Your task to perform on an android device: toggle location history Image 0: 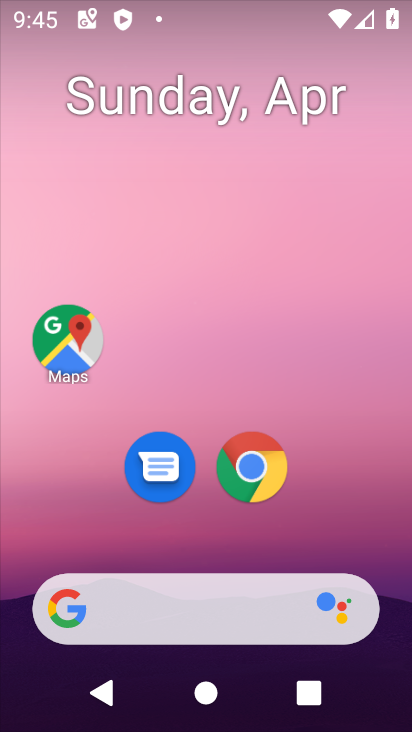
Step 0: drag from (202, 552) to (231, 43)
Your task to perform on an android device: toggle location history Image 1: 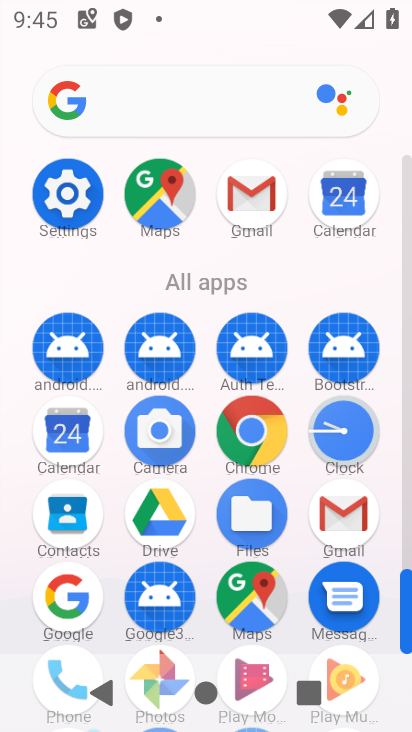
Step 1: click (84, 183)
Your task to perform on an android device: toggle location history Image 2: 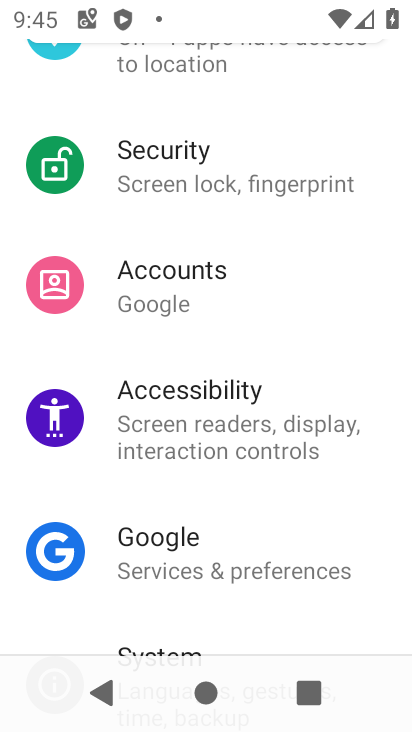
Step 2: drag from (219, 146) to (201, 445)
Your task to perform on an android device: toggle location history Image 3: 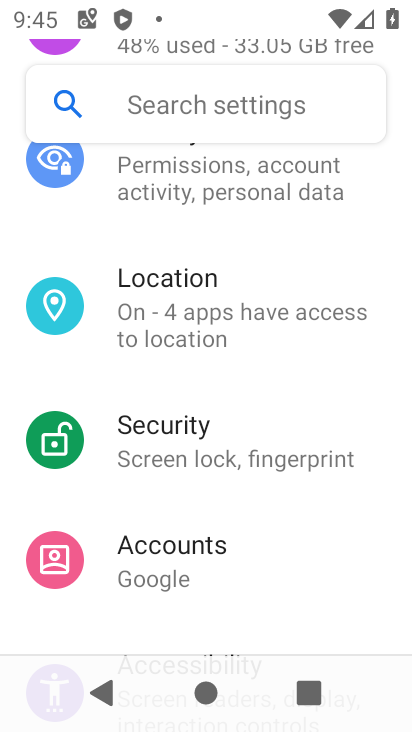
Step 3: click (223, 301)
Your task to perform on an android device: toggle location history Image 4: 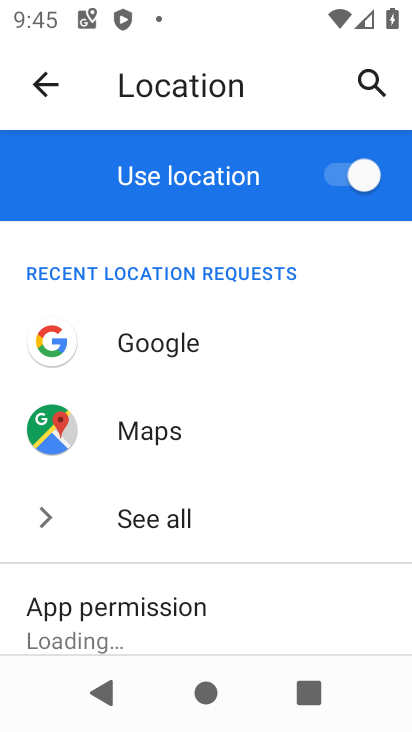
Step 4: drag from (208, 619) to (246, 162)
Your task to perform on an android device: toggle location history Image 5: 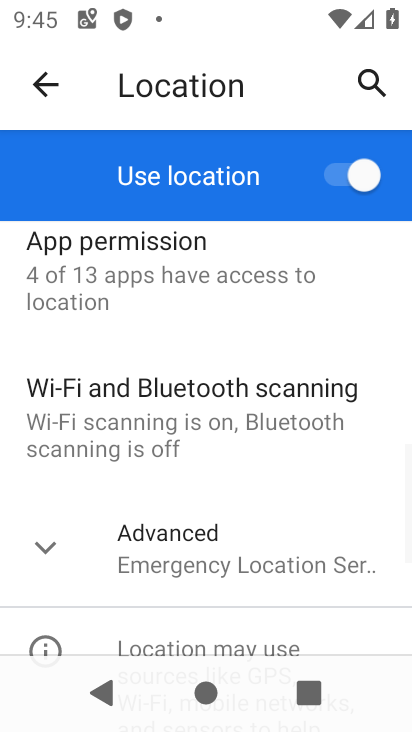
Step 5: click (176, 536)
Your task to perform on an android device: toggle location history Image 6: 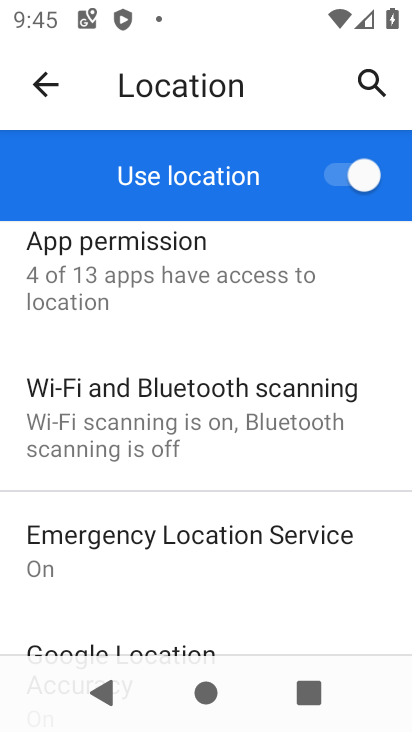
Step 6: drag from (222, 623) to (256, 263)
Your task to perform on an android device: toggle location history Image 7: 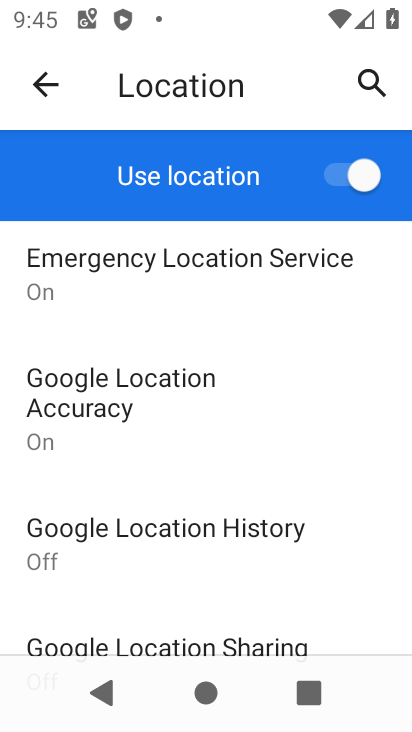
Step 7: click (201, 533)
Your task to perform on an android device: toggle location history Image 8: 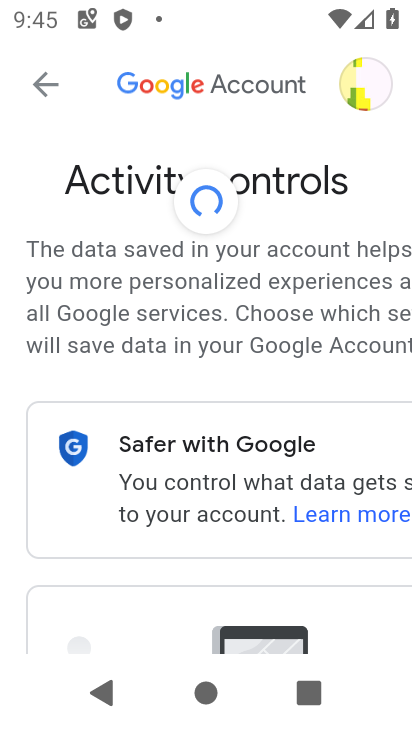
Step 8: drag from (272, 515) to (335, 84)
Your task to perform on an android device: toggle location history Image 9: 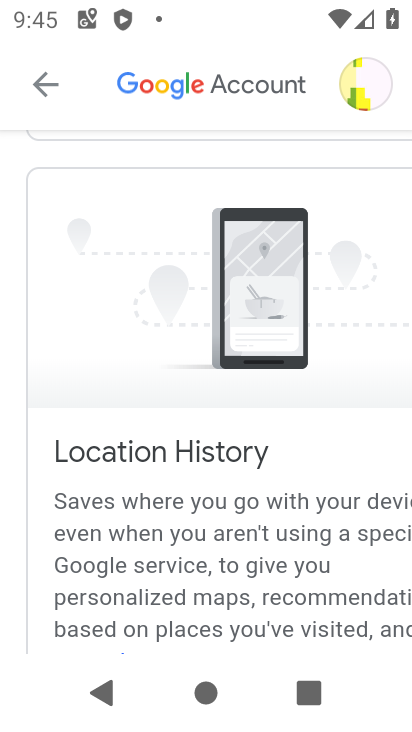
Step 9: drag from (254, 579) to (309, 88)
Your task to perform on an android device: toggle location history Image 10: 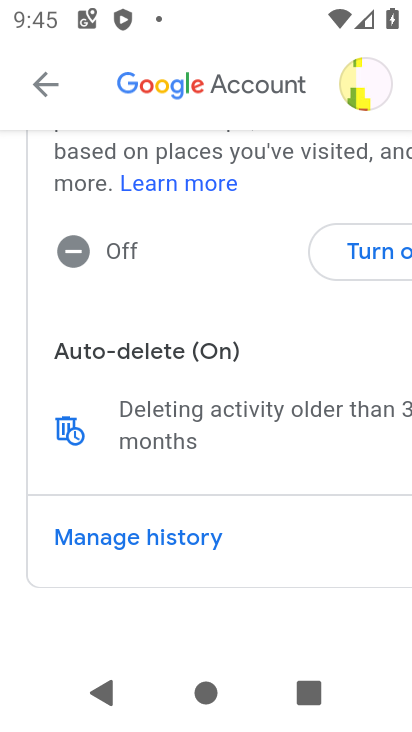
Step 10: click (367, 248)
Your task to perform on an android device: toggle location history Image 11: 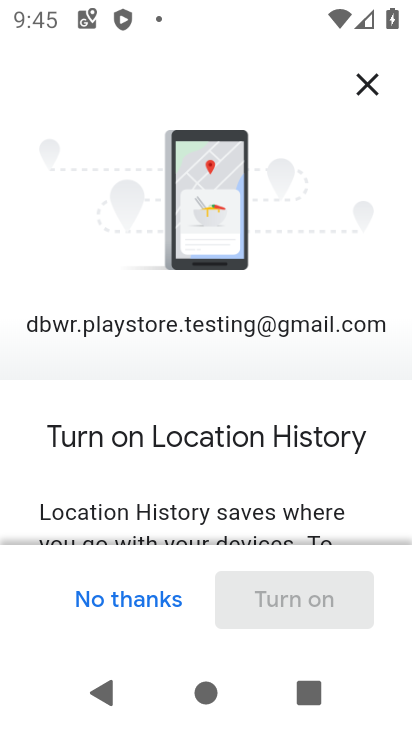
Step 11: drag from (215, 480) to (307, 11)
Your task to perform on an android device: toggle location history Image 12: 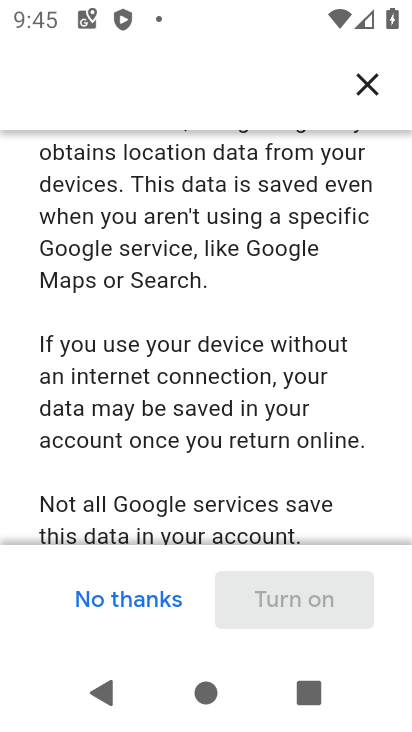
Step 12: drag from (257, 465) to (325, 10)
Your task to perform on an android device: toggle location history Image 13: 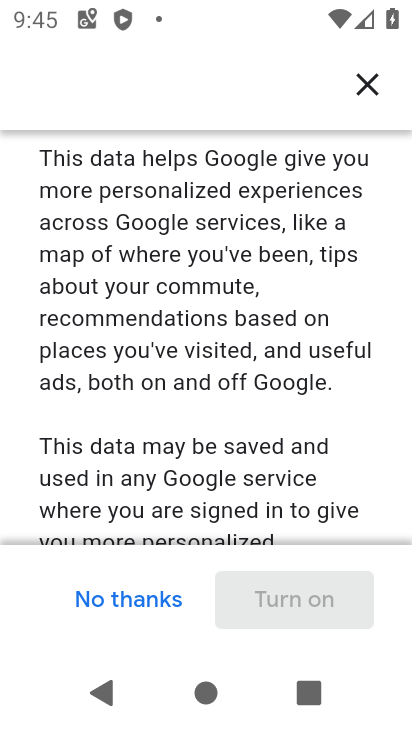
Step 13: drag from (235, 499) to (284, 55)
Your task to perform on an android device: toggle location history Image 14: 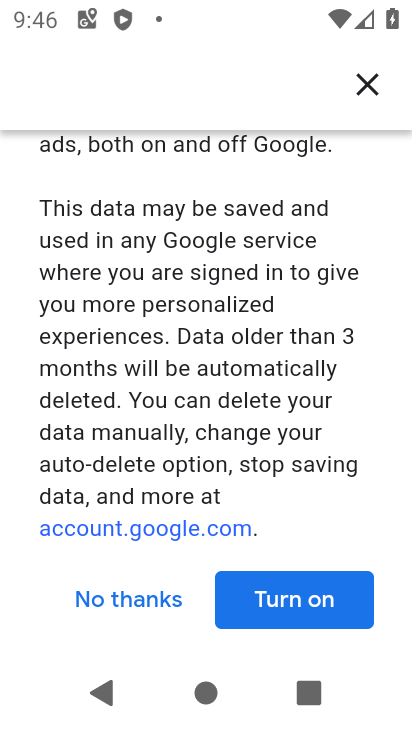
Step 14: click (258, 608)
Your task to perform on an android device: toggle location history Image 15: 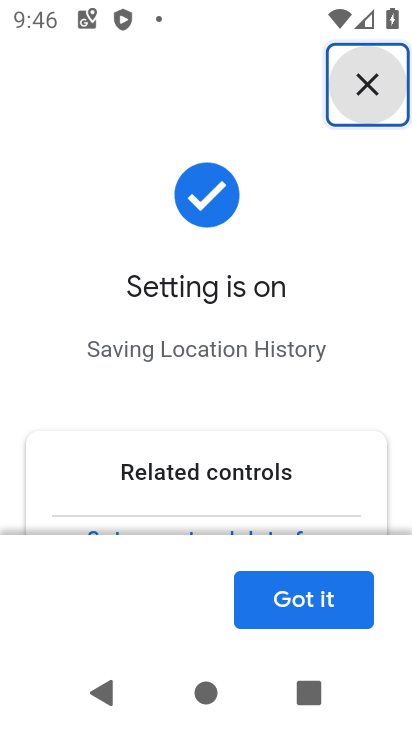
Step 15: click (258, 608)
Your task to perform on an android device: toggle location history Image 16: 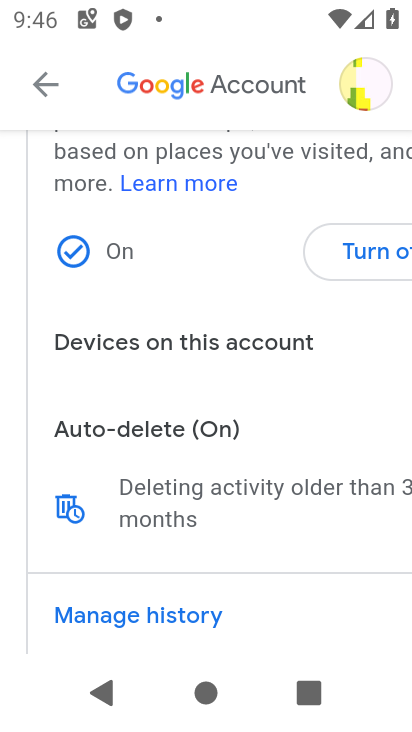
Step 16: task complete